Your task to perform on an android device: Open Reddit.com Image 0: 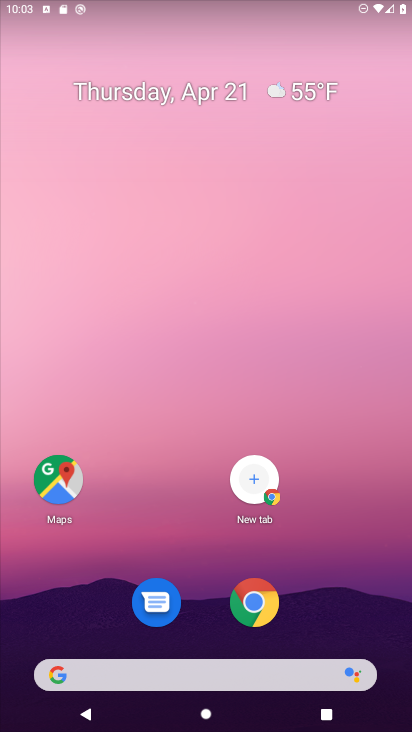
Step 0: click (257, 602)
Your task to perform on an android device: Open Reddit.com Image 1: 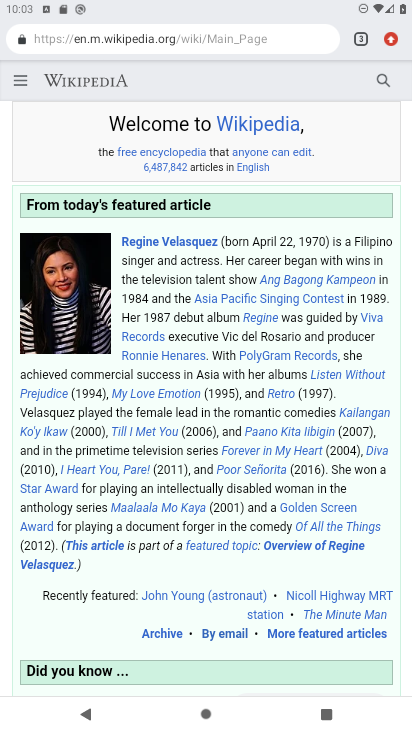
Step 1: click (180, 38)
Your task to perform on an android device: Open Reddit.com Image 2: 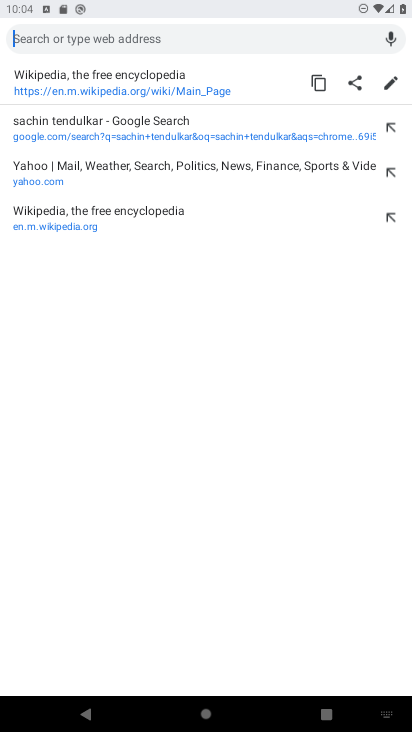
Step 2: type "reddit.com"
Your task to perform on an android device: Open Reddit.com Image 3: 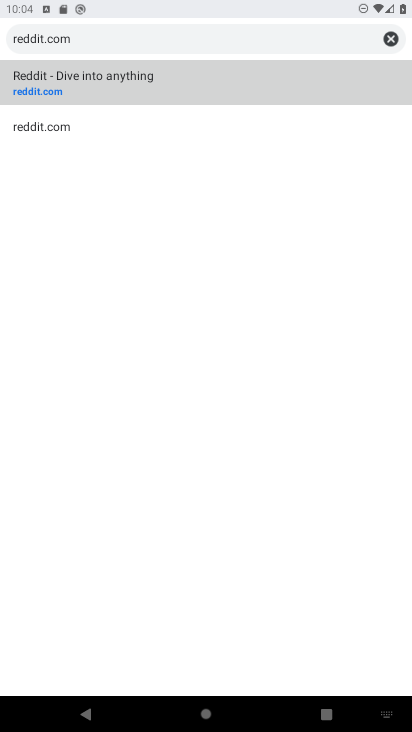
Step 3: click (174, 95)
Your task to perform on an android device: Open Reddit.com Image 4: 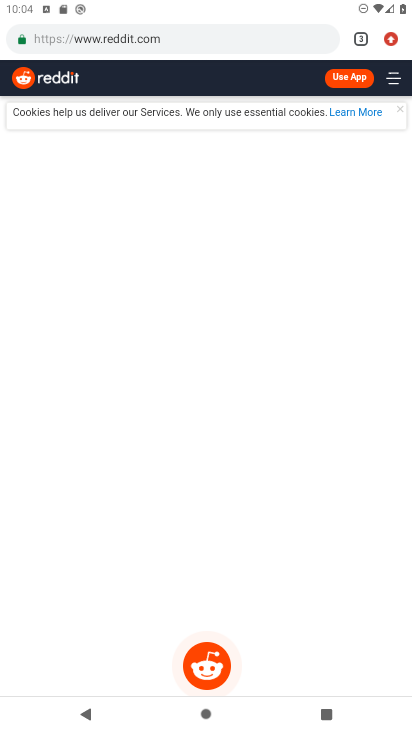
Step 4: task complete